Your task to perform on an android device: uninstall "Google Maps" Image 0: 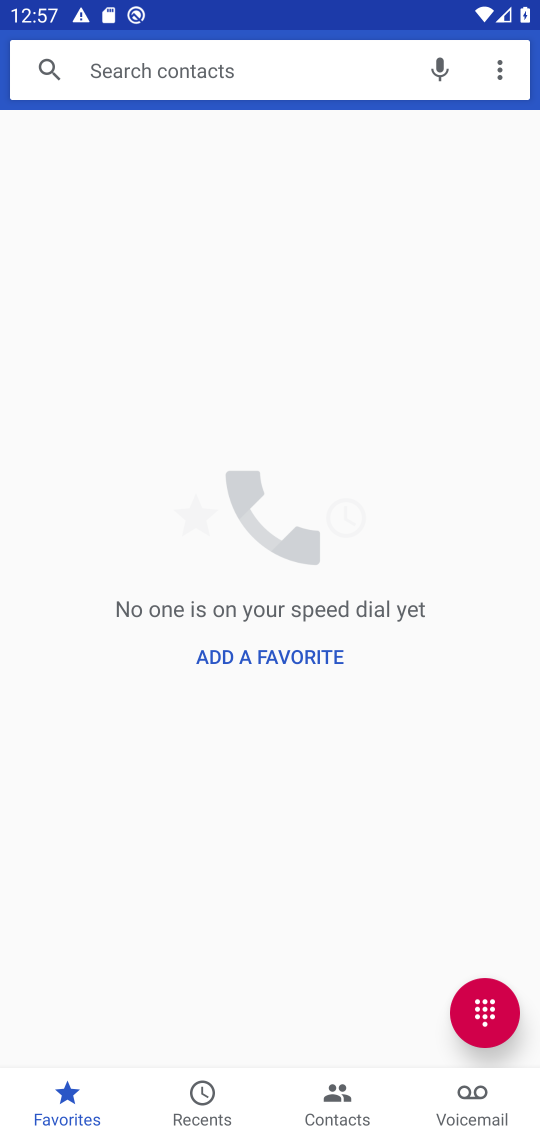
Step 0: press home button
Your task to perform on an android device: uninstall "Google Maps" Image 1: 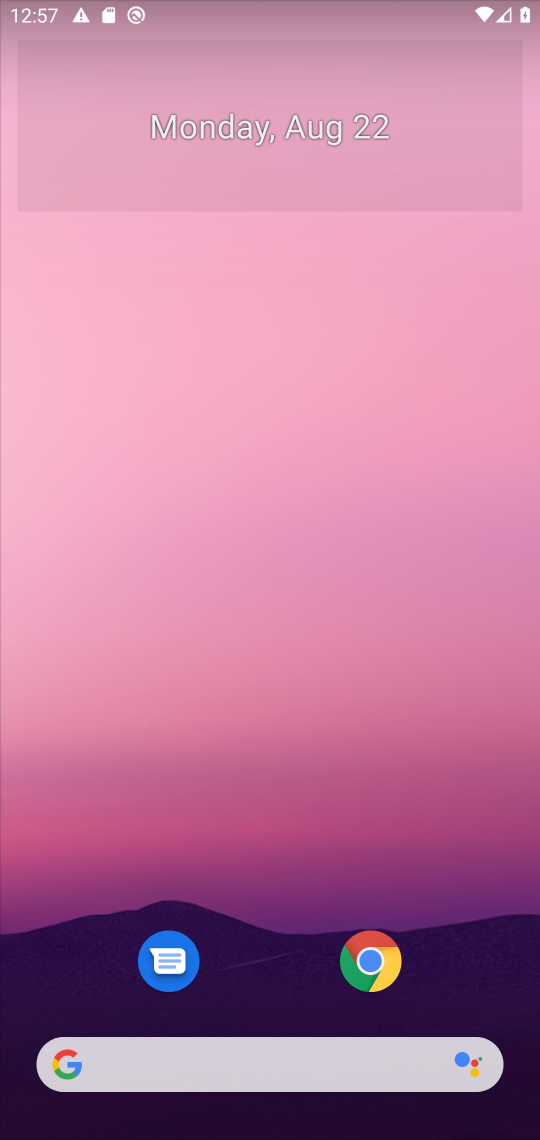
Step 1: drag from (471, 911) to (454, 173)
Your task to perform on an android device: uninstall "Google Maps" Image 2: 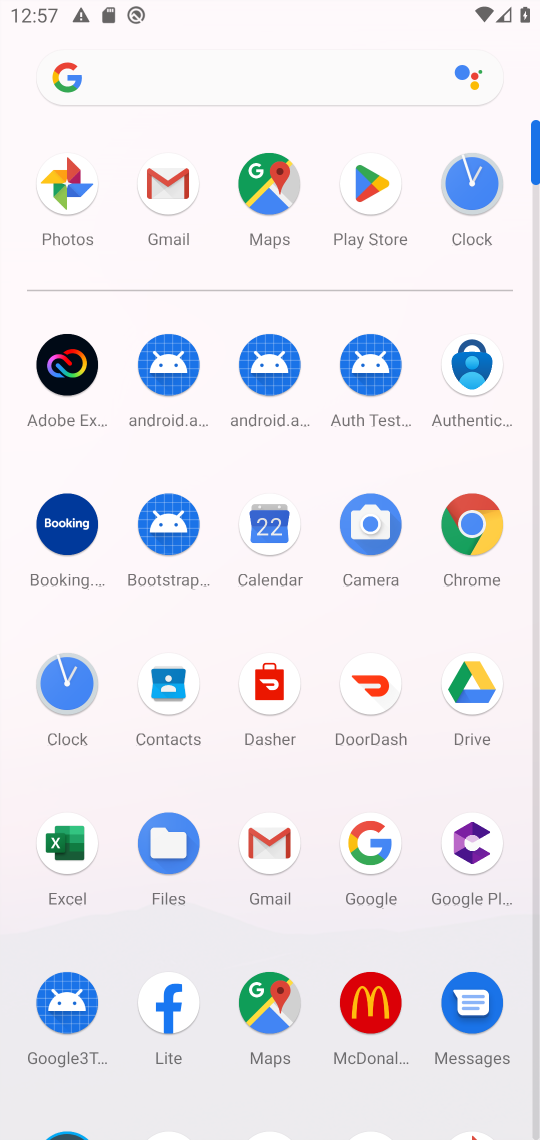
Step 2: click (376, 189)
Your task to perform on an android device: uninstall "Google Maps" Image 3: 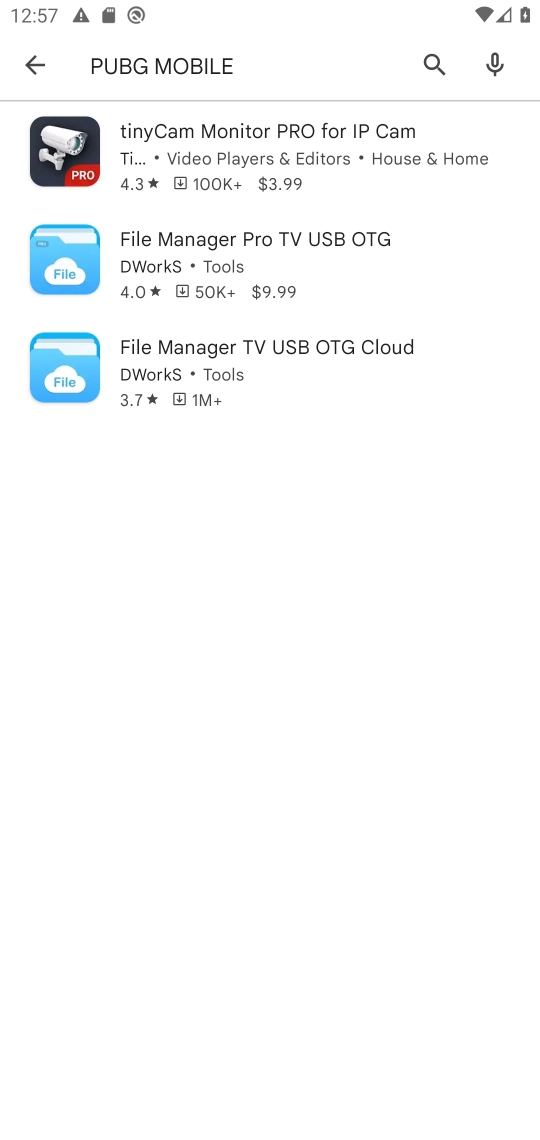
Step 3: press back button
Your task to perform on an android device: uninstall "Google Maps" Image 4: 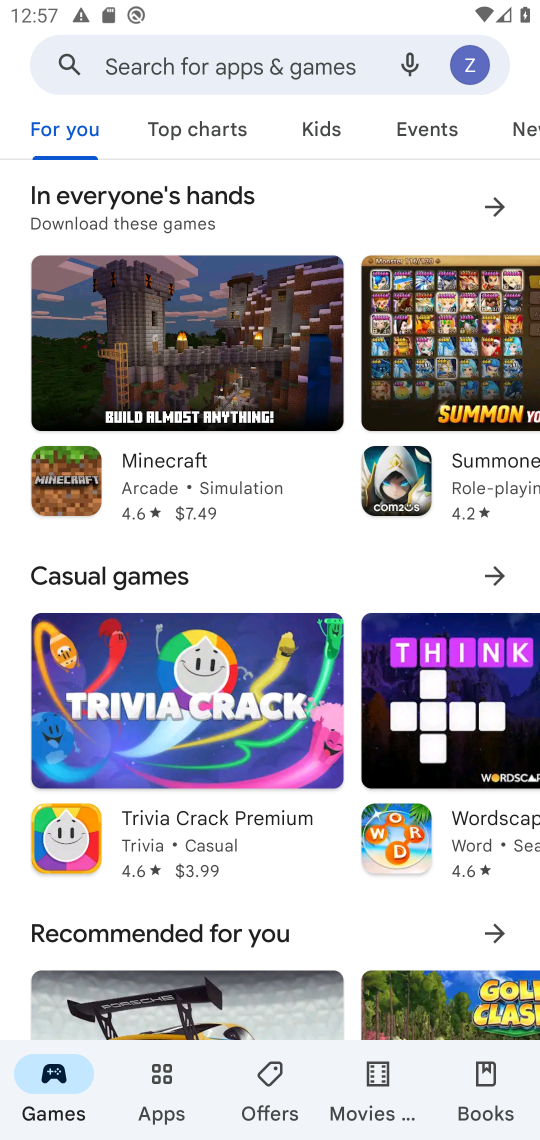
Step 4: click (318, 76)
Your task to perform on an android device: uninstall "Google Maps" Image 5: 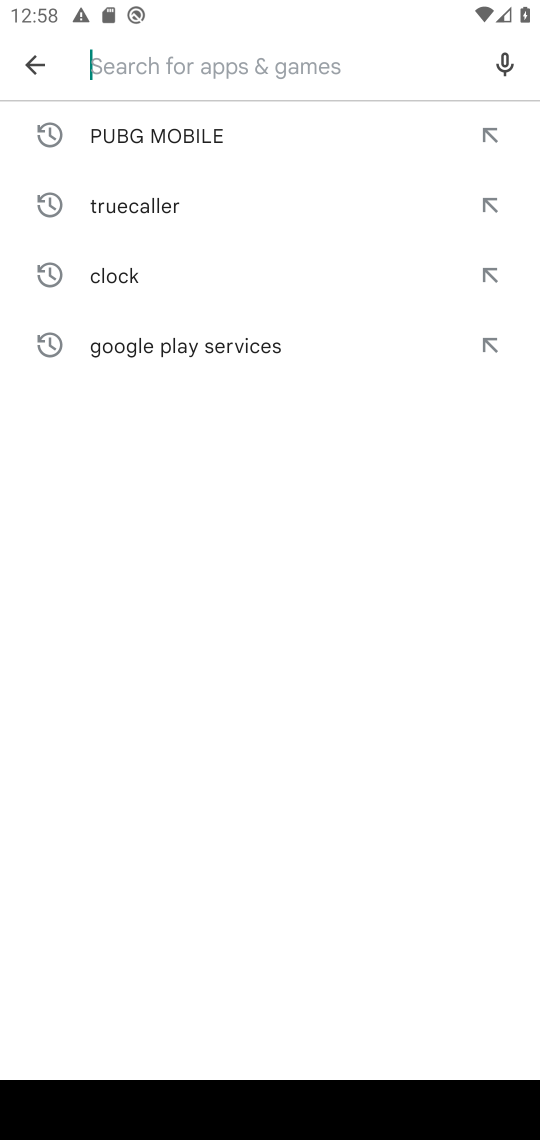
Step 5: type "Google Maps"
Your task to perform on an android device: uninstall "Google Maps" Image 6: 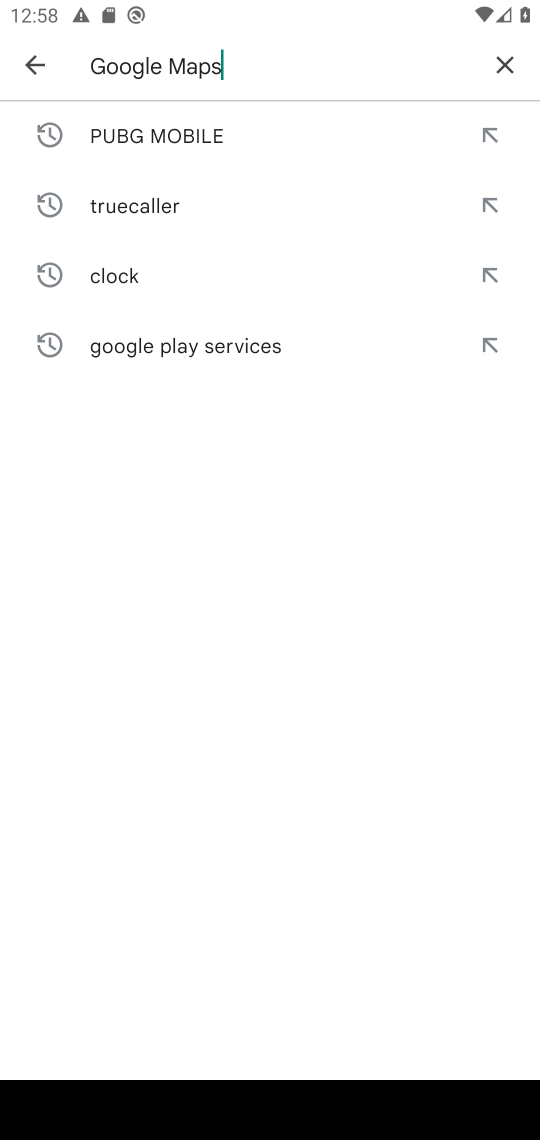
Step 6: press enter
Your task to perform on an android device: uninstall "Google Maps" Image 7: 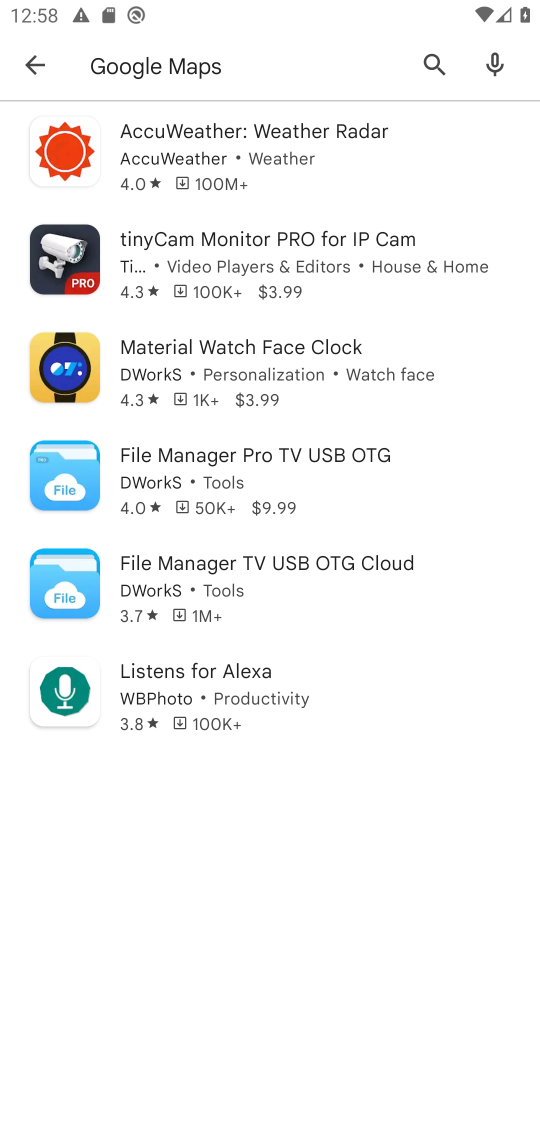
Step 7: task complete